Your task to perform on an android device: Is it going to rain today? Image 0: 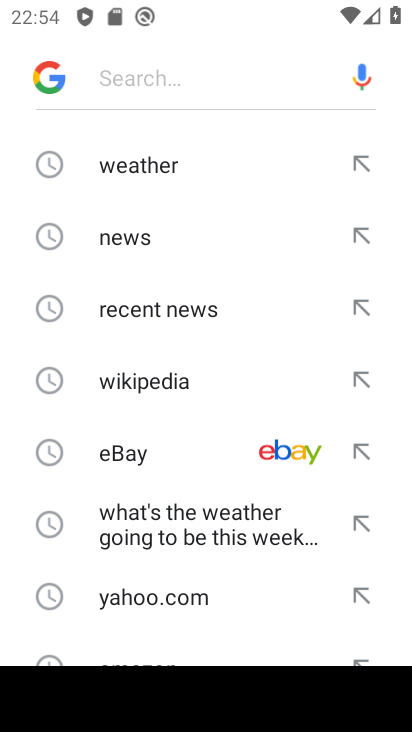
Step 0: press home button
Your task to perform on an android device: Is it going to rain today? Image 1: 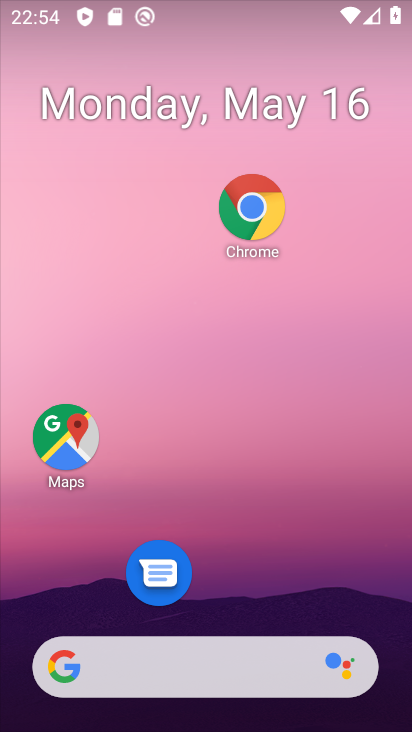
Step 1: drag from (302, 651) to (321, 65)
Your task to perform on an android device: Is it going to rain today? Image 2: 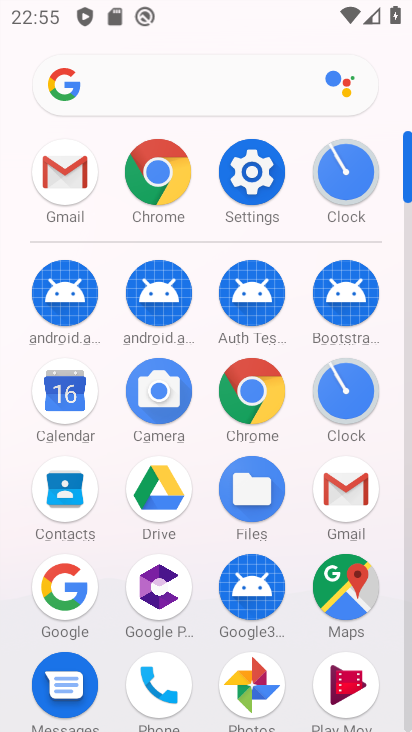
Step 2: click (264, 385)
Your task to perform on an android device: Is it going to rain today? Image 3: 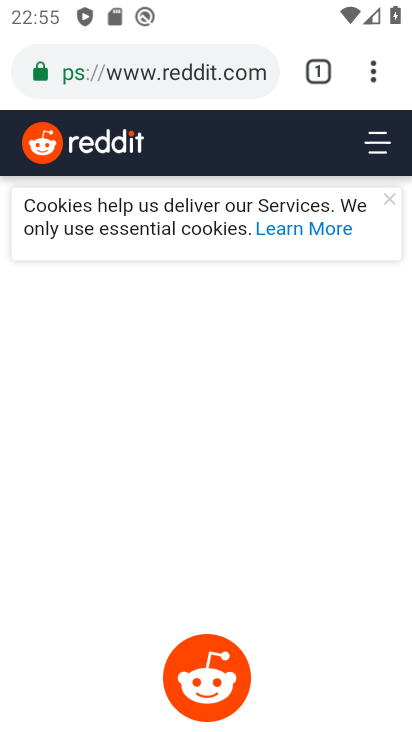
Step 3: press home button
Your task to perform on an android device: Is it going to rain today? Image 4: 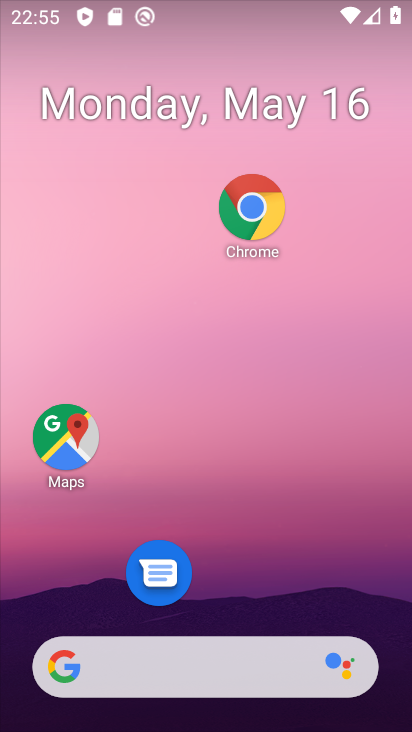
Step 4: drag from (35, 332) to (410, 355)
Your task to perform on an android device: Is it going to rain today? Image 5: 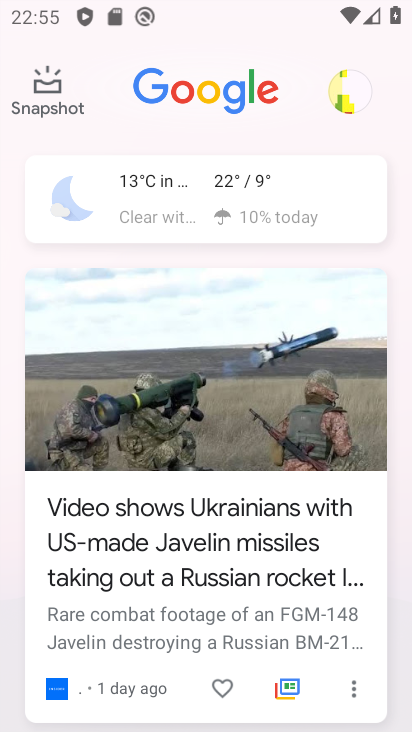
Step 5: click (164, 208)
Your task to perform on an android device: Is it going to rain today? Image 6: 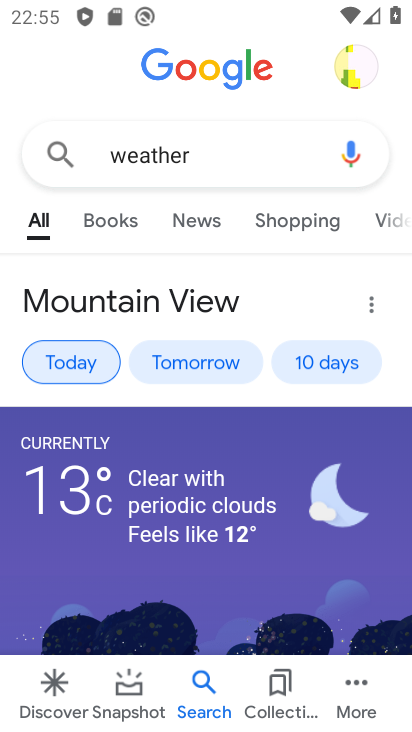
Step 6: task complete